Your task to perform on an android device: Open Google Maps and go to "Timeline" Image 0: 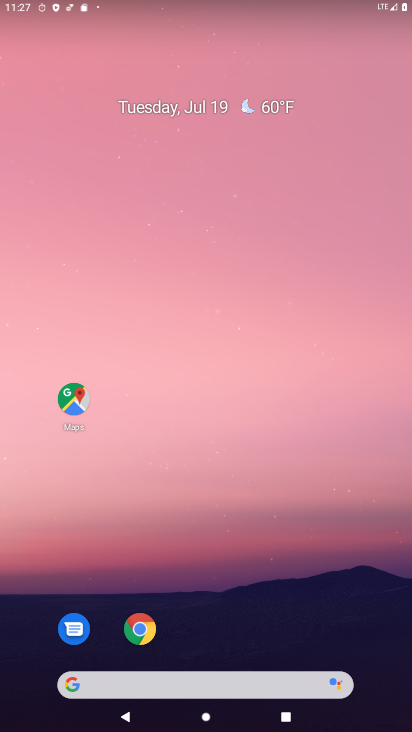
Step 0: drag from (325, 630) to (297, 91)
Your task to perform on an android device: Open Google Maps and go to "Timeline" Image 1: 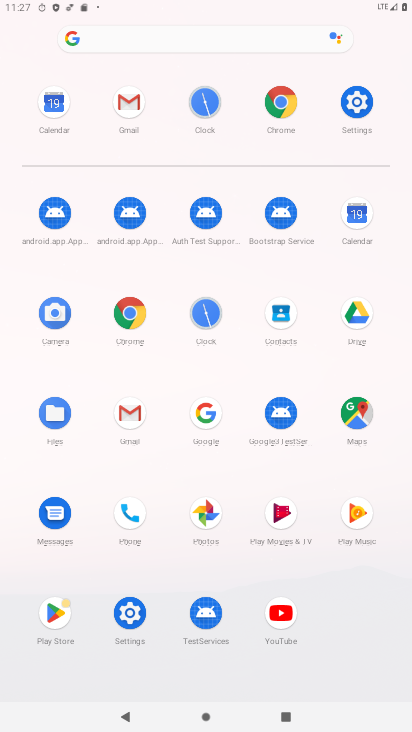
Step 1: click (364, 413)
Your task to perform on an android device: Open Google Maps and go to "Timeline" Image 2: 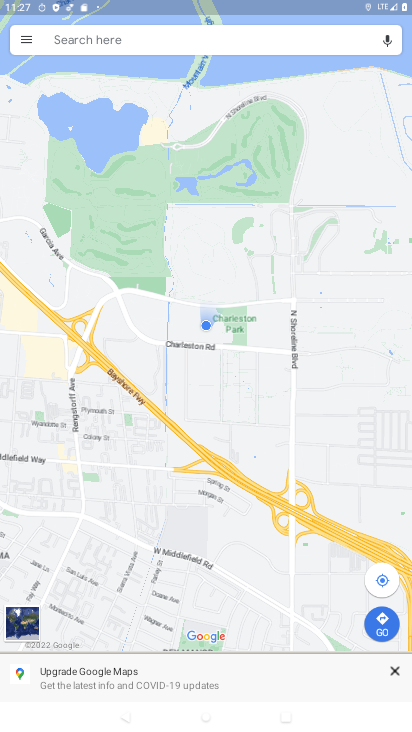
Step 2: click (33, 40)
Your task to perform on an android device: Open Google Maps and go to "Timeline" Image 3: 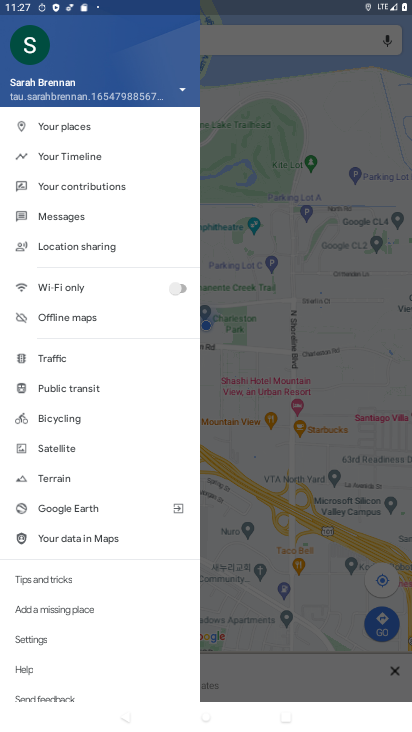
Step 3: click (83, 155)
Your task to perform on an android device: Open Google Maps and go to "Timeline" Image 4: 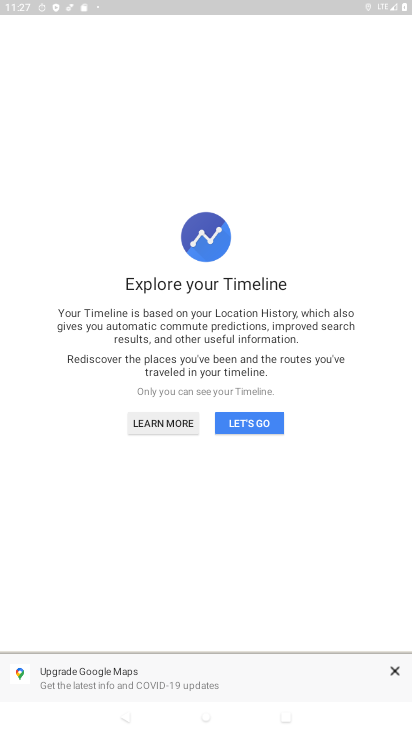
Step 4: click (268, 419)
Your task to perform on an android device: Open Google Maps and go to "Timeline" Image 5: 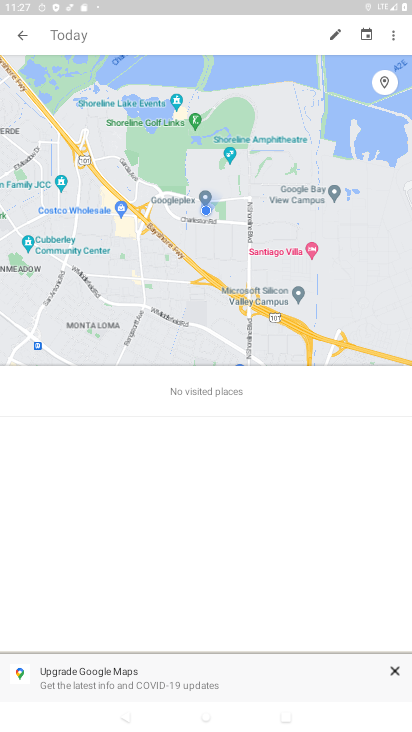
Step 5: task complete